Your task to perform on an android device: What's the weather? Image 0: 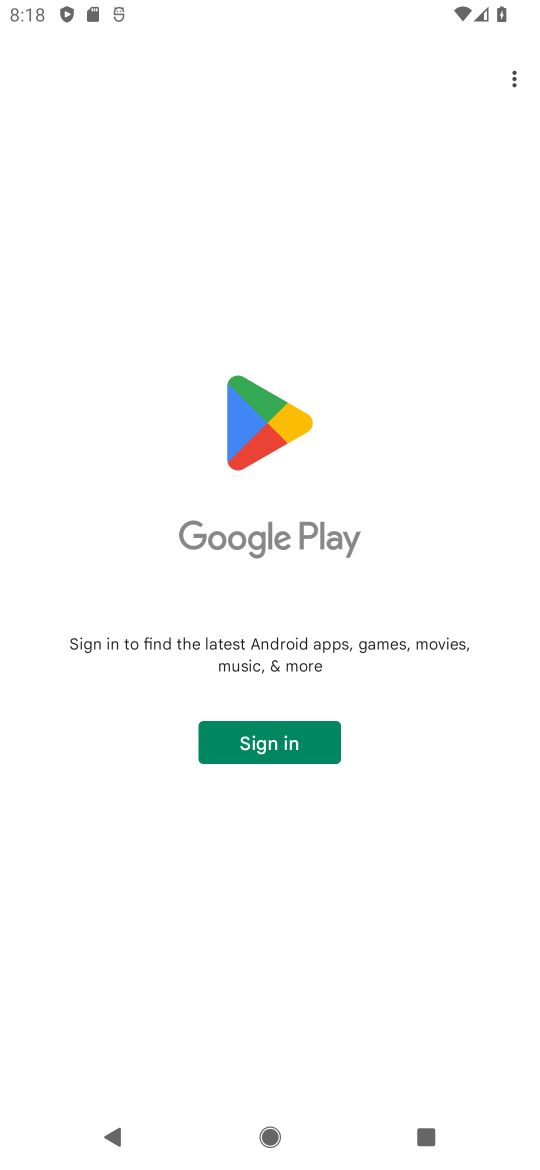
Step 0: press back button
Your task to perform on an android device: What's the weather? Image 1: 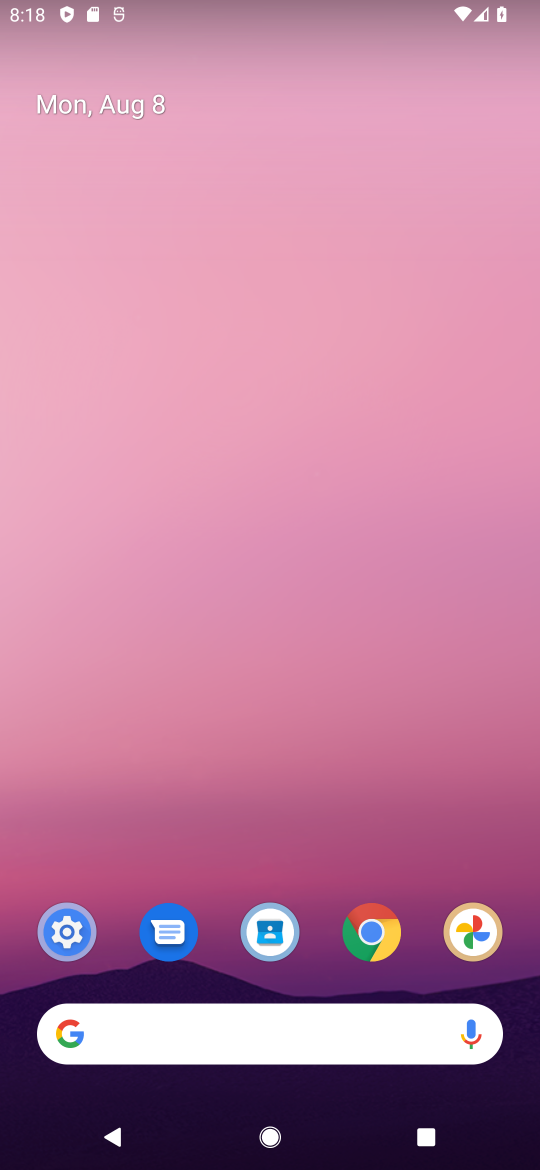
Step 1: click (228, 1036)
Your task to perform on an android device: What's the weather? Image 2: 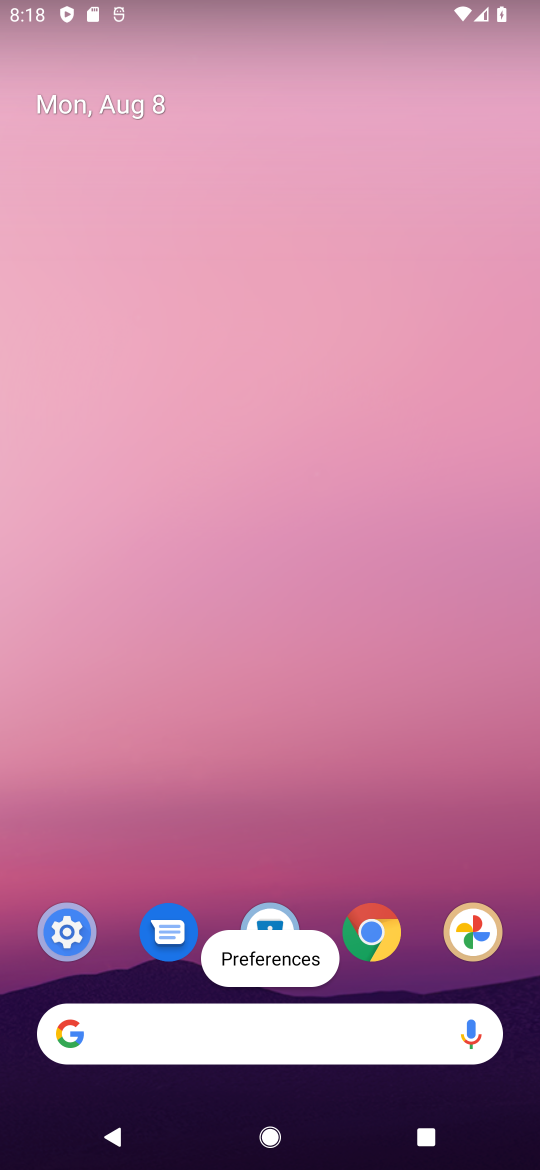
Step 2: click (252, 1028)
Your task to perform on an android device: What's the weather? Image 3: 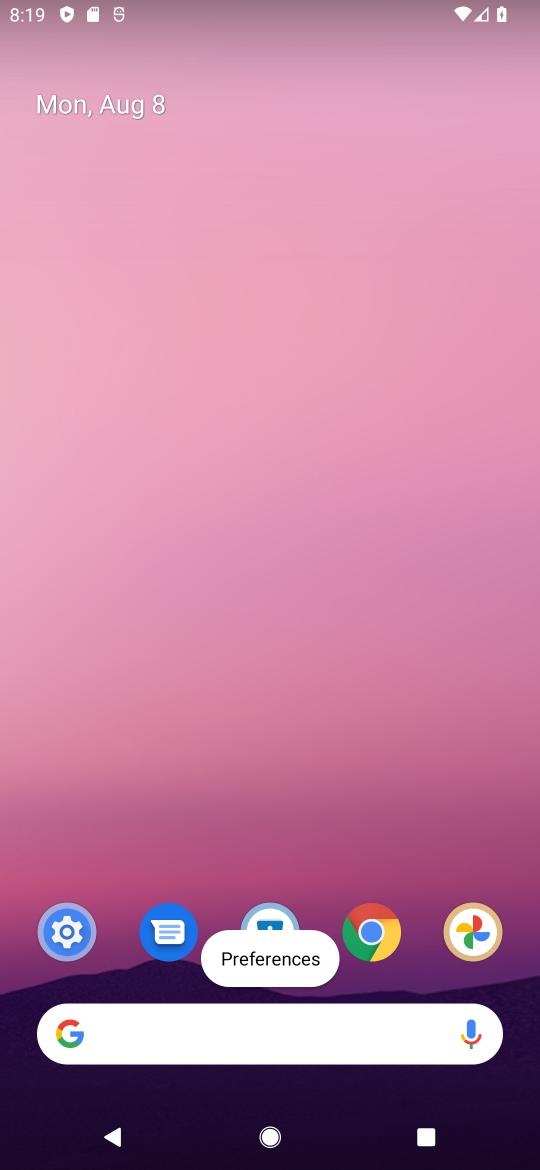
Step 3: click (252, 1036)
Your task to perform on an android device: What's the weather? Image 4: 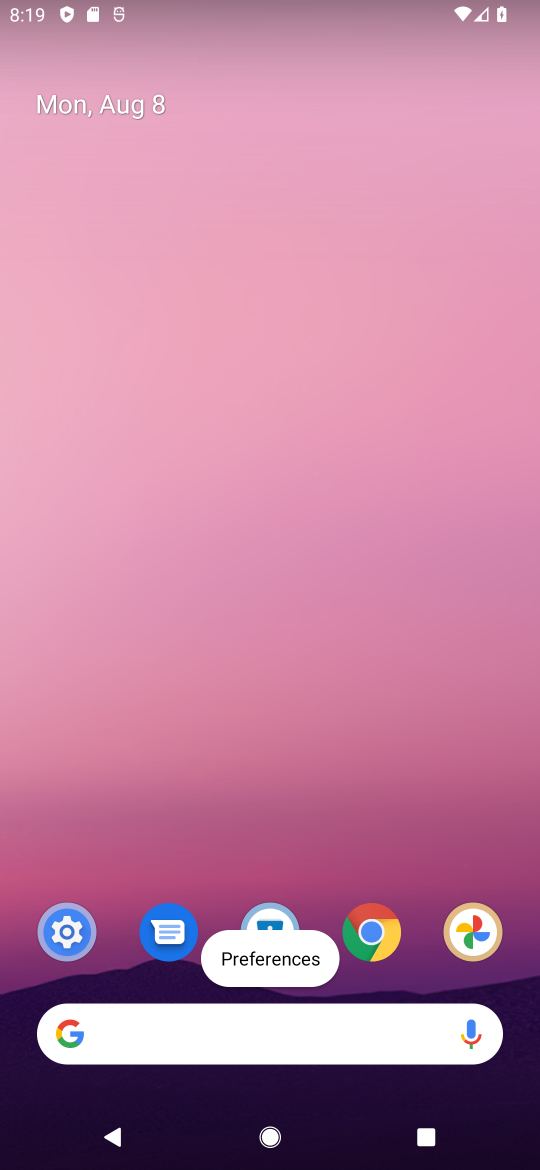
Step 4: click (252, 1036)
Your task to perform on an android device: What's the weather? Image 5: 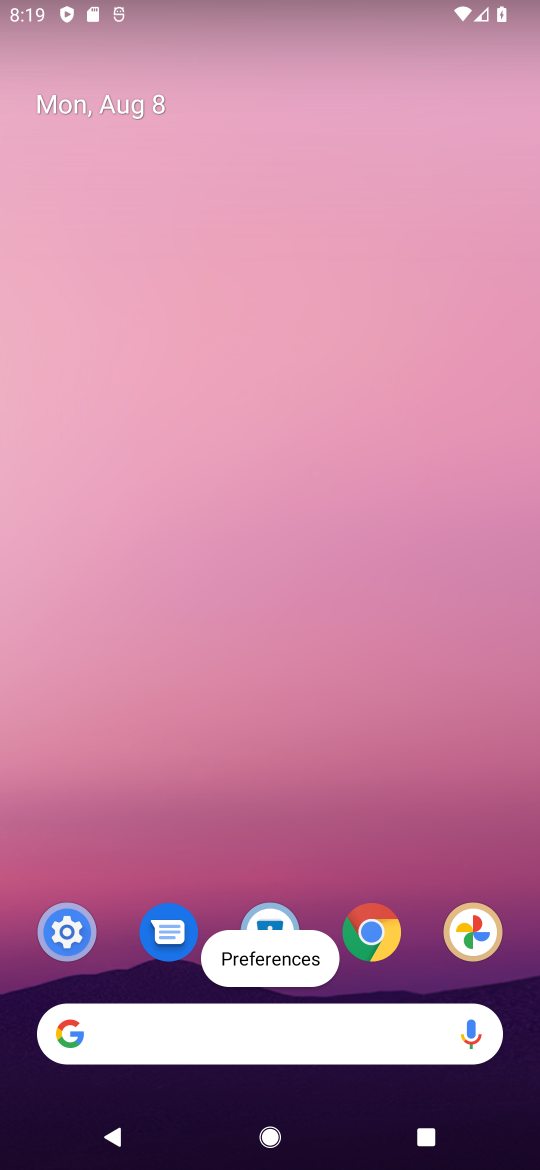
Step 5: click (247, 1036)
Your task to perform on an android device: What's the weather? Image 6: 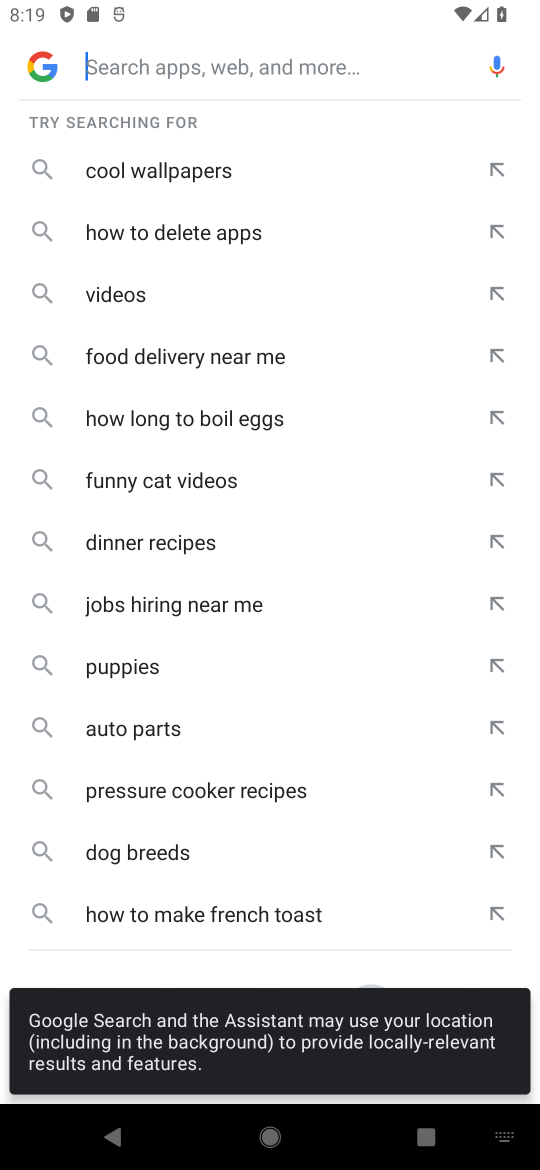
Step 6: click (178, 49)
Your task to perform on an android device: What's the weather? Image 7: 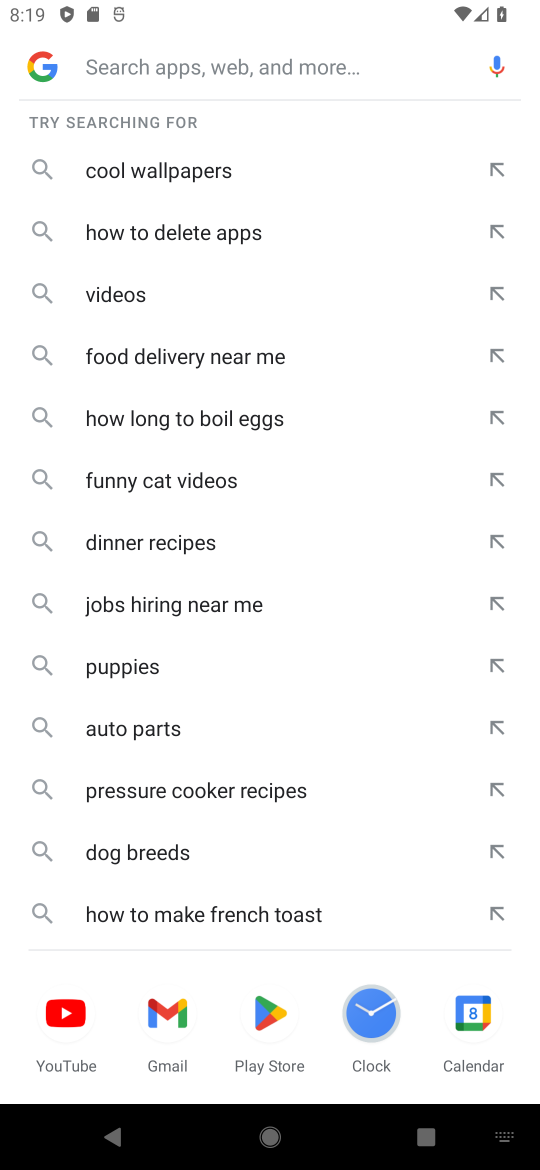
Step 7: type "weather"
Your task to perform on an android device: What's the weather? Image 8: 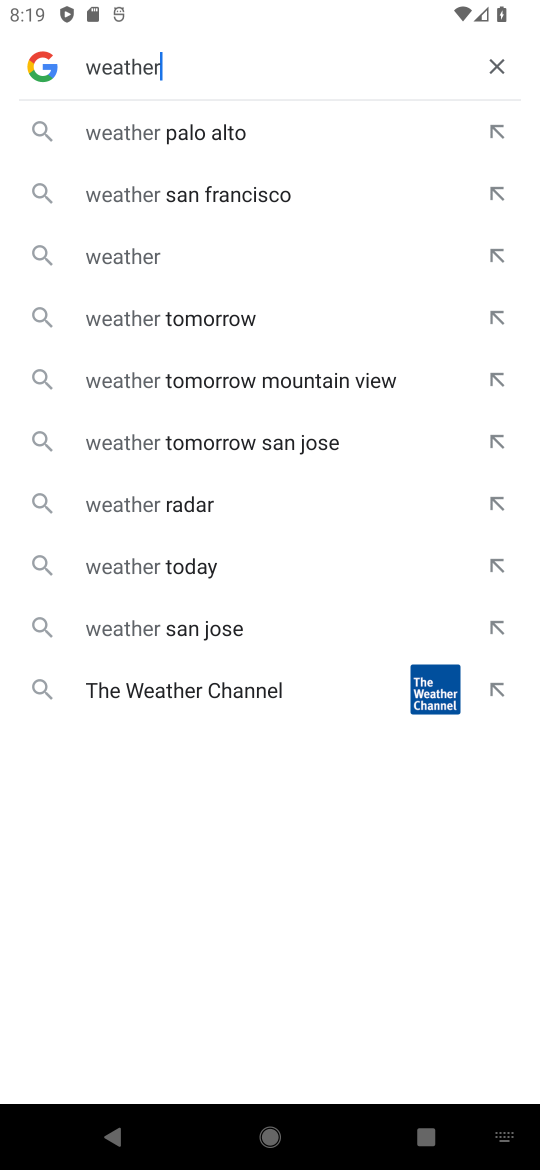
Step 8: click (121, 246)
Your task to perform on an android device: What's the weather? Image 9: 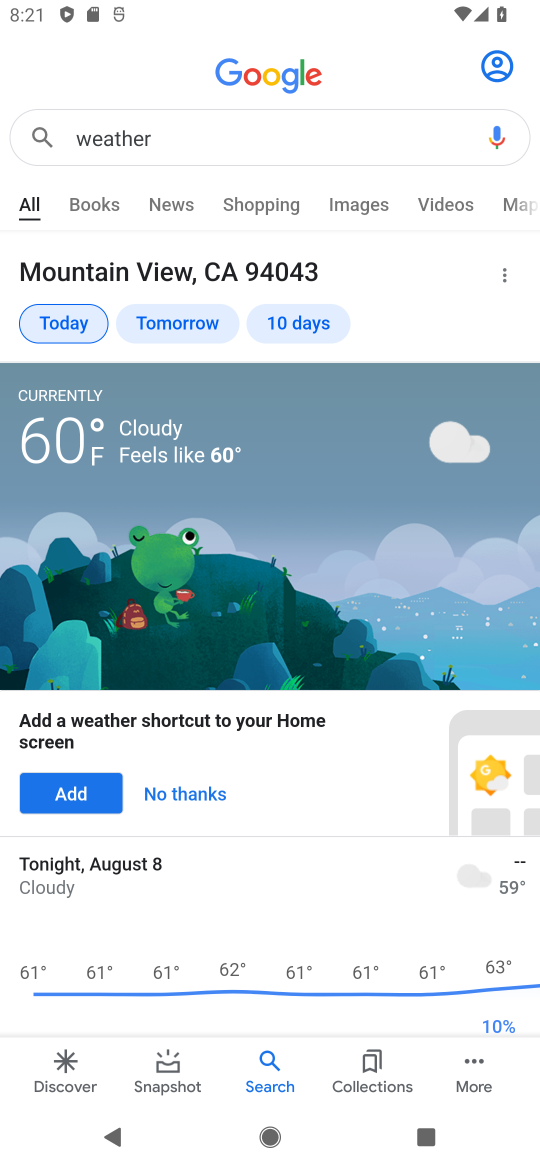
Step 9: task complete